Your task to perform on an android device: make emails show in primary in the gmail app Image 0: 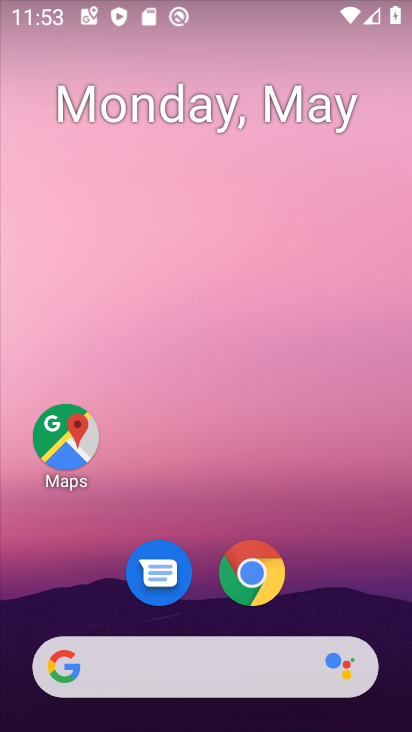
Step 0: drag from (225, 668) to (273, 35)
Your task to perform on an android device: make emails show in primary in the gmail app Image 1: 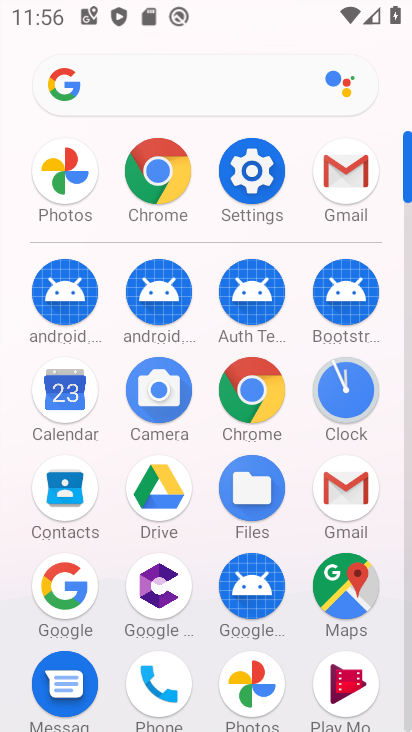
Step 1: click (342, 506)
Your task to perform on an android device: make emails show in primary in the gmail app Image 2: 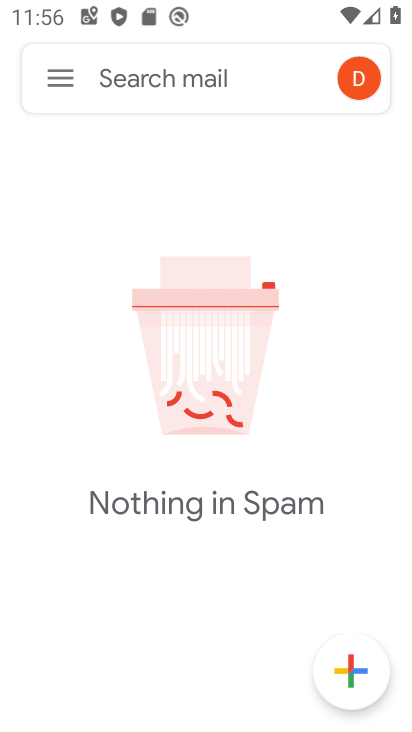
Step 2: click (57, 79)
Your task to perform on an android device: make emails show in primary in the gmail app Image 3: 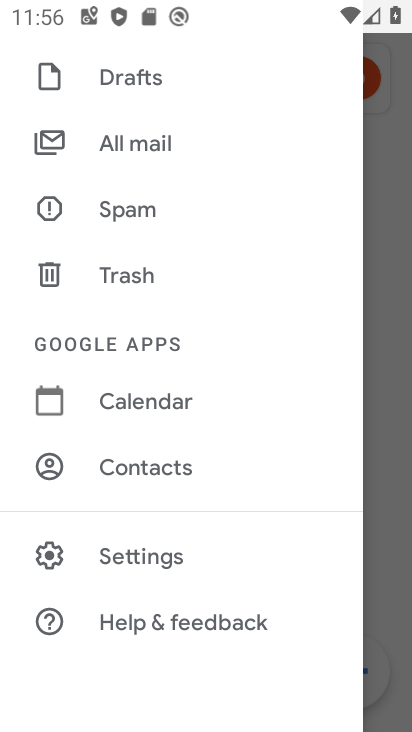
Step 3: click (142, 152)
Your task to perform on an android device: make emails show in primary in the gmail app Image 4: 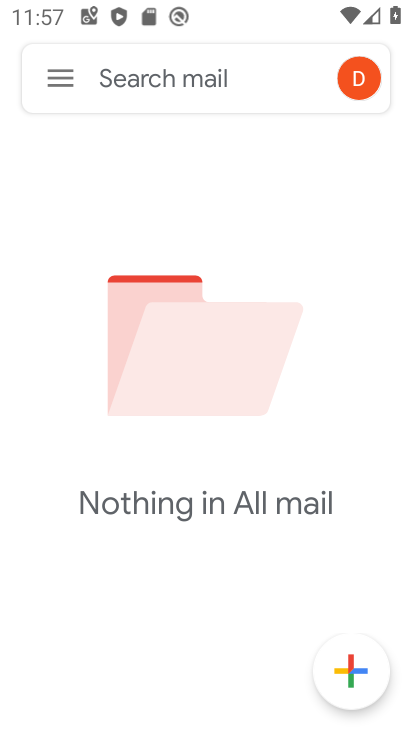
Step 4: task complete